Your task to perform on an android device: What's the weather? Image 0: 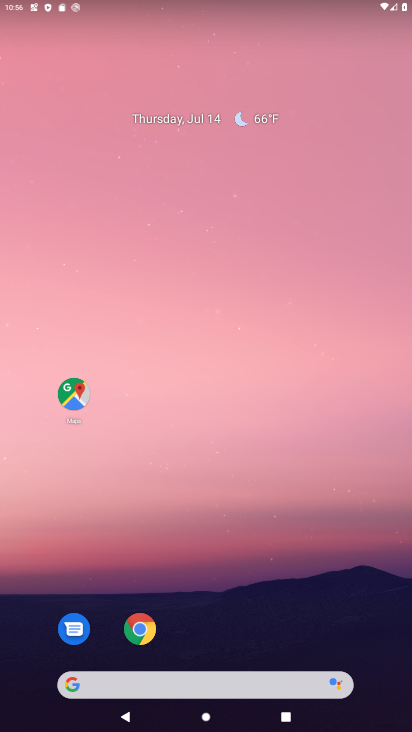
Step 0: click (66, 685)
Your task to perform on an android device: What's the weather? Image 1: 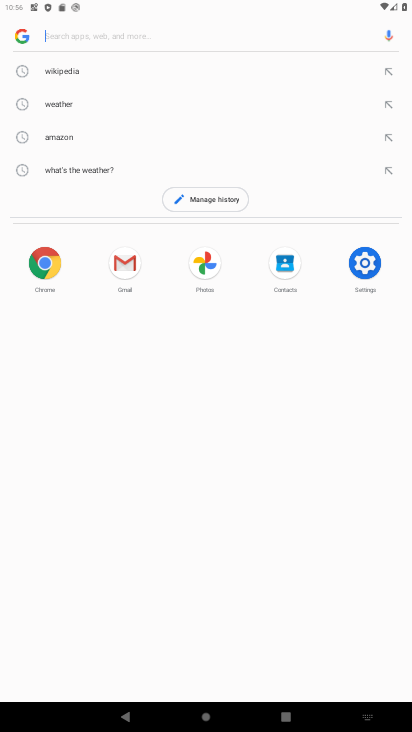
Step 1: click (64, 103)
Your task to perform on an android device: What's the weather? Image 2: 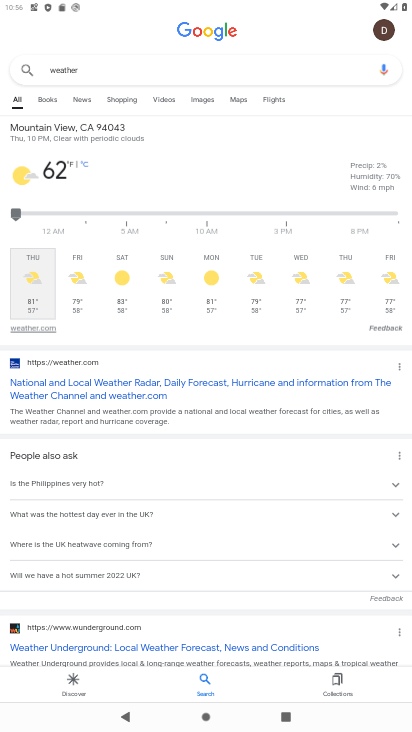
Step 2: task complete